Your task to perform on an android device: What's on my calendar tomorrow? Image 0: 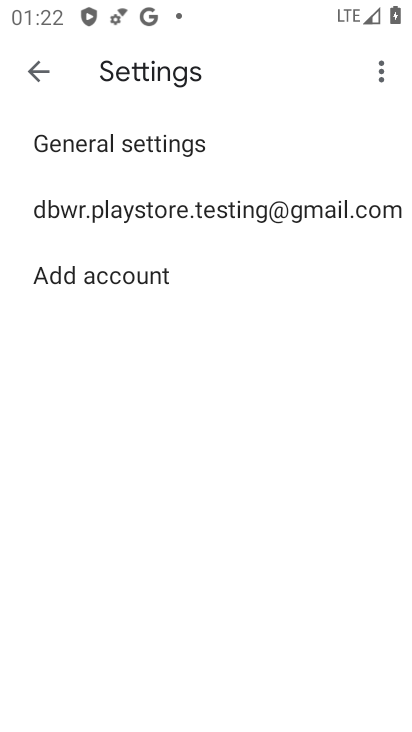
Step 0: press home button
Your task to perform on an android device: What's on my calendar tomorrow? Image 1: 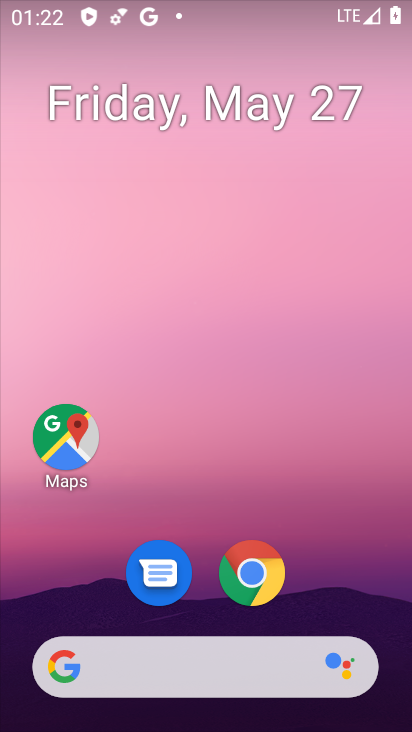
Step 1: drag from (163, 611) to (238, 5)
Your task to perform on an android device: What's on my calendar tomorrow? Image 2: 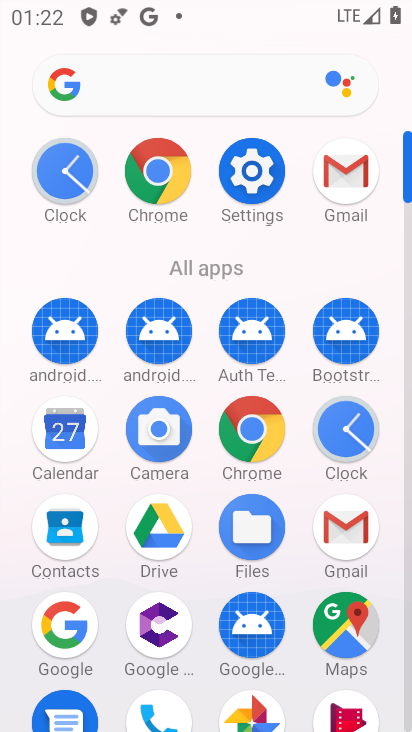
Step 2: click (63, 424)
Your task to perform on an android device: What's on my calendar tomorrow? Image 3: 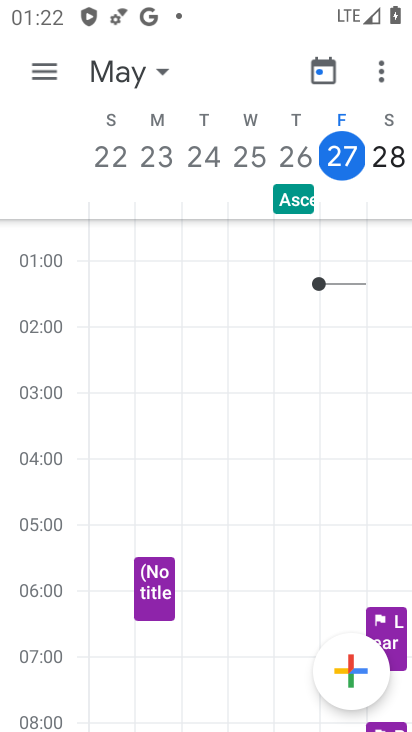
Step 3: click (386, 151)
Your task to perform on an android device: What's on my calendar tomorrow? Image 4: 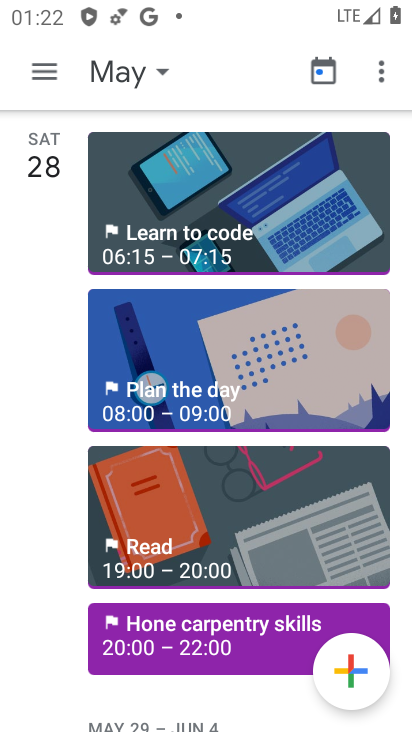
Step 4: task complete